Your task to perform on an android device: manage bookmarks in the chrome app Image 0: 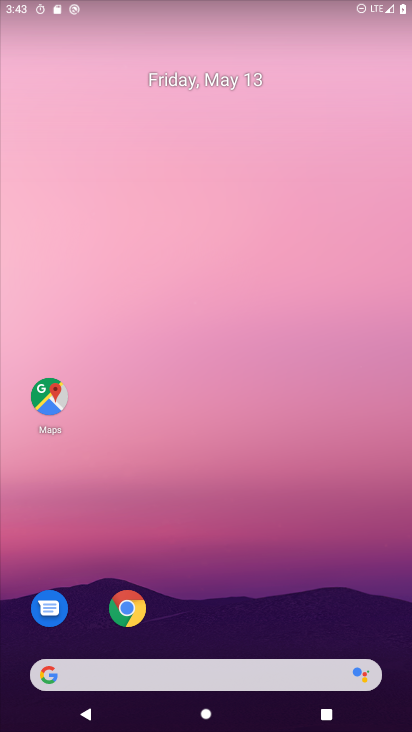
Step 0: drag from (313, 607) to (298, 137)
Your task to perform on an android device: manage bookmarks in the chrome app Image 1: 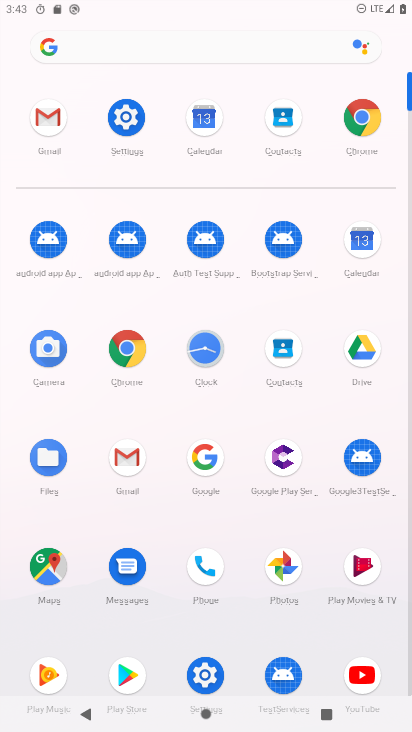
Step 1: click (356, 118)
Your task to perform on an android device: manage bookmarks in the chrome app Image 2: 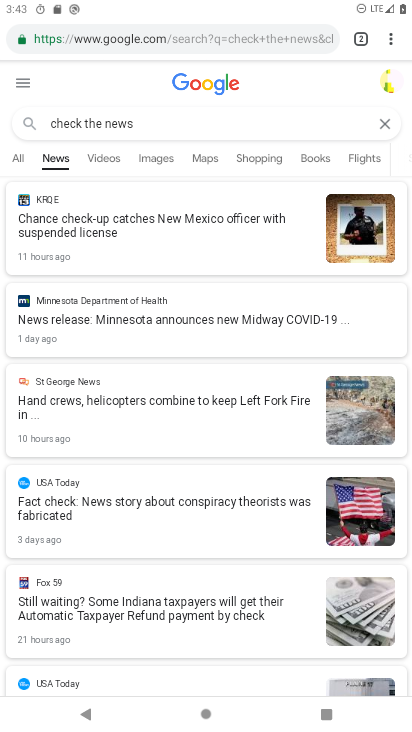
Step 2: task complete